Your task to perform on an android device: turn off improve location accuracy Image 0: 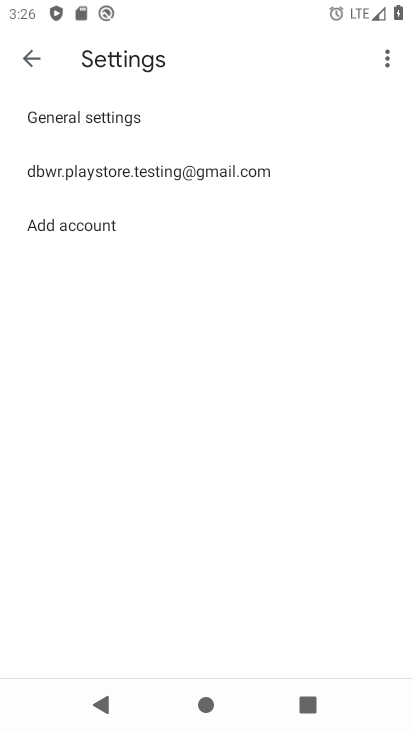
Step 0: press home button
Your task to perform on an android device: turn off improve location accuracy Image 1: 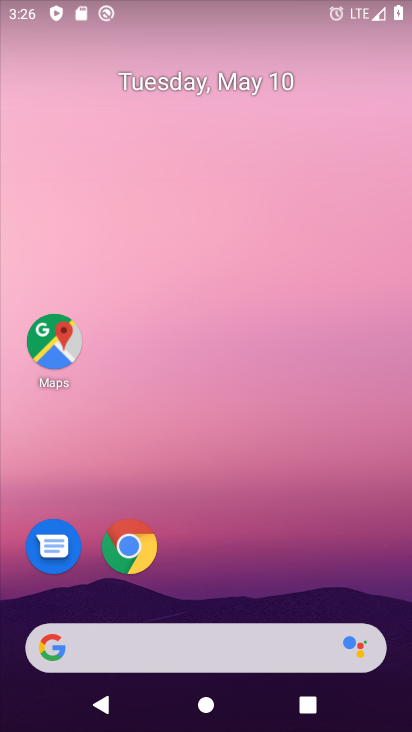
Step 1: drag from (212, 596) to (280, 50)
Your task to perform on an android device: turn off improve location accuracy Image 2: 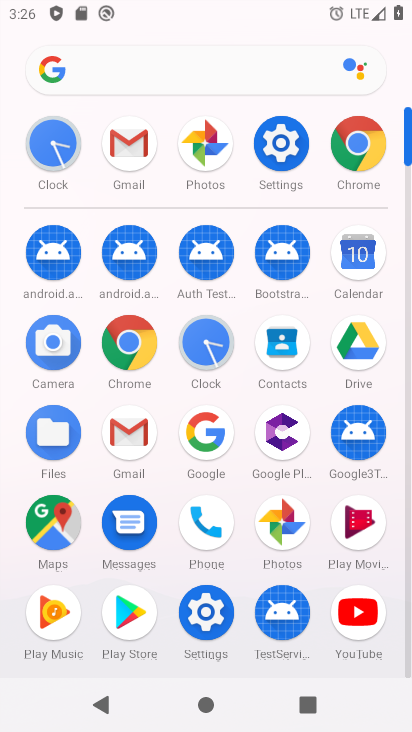
Step 2: click (217, 623)
Your task to perform on an android device: turn off improve location accuracy Image 3: 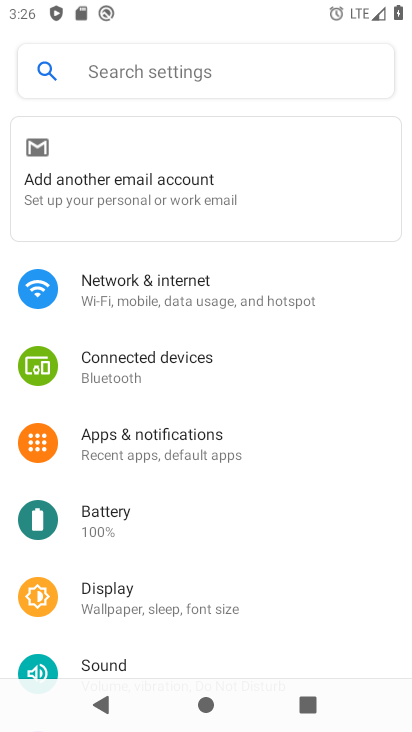
Step 3: drag from (191, 544) to (223, 285)
Your task to perform on an android device: turn off improve location accuracy Image 4: 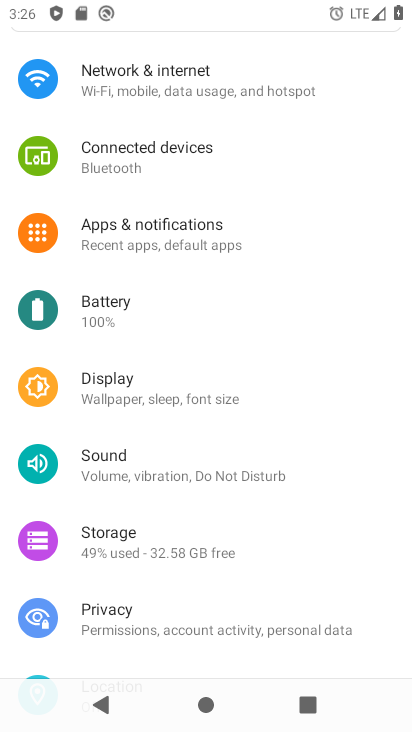
Step 4: drag from (209, 493) to (205, 375)
Your task to perform on an android device: turn off improve location accuracy Image 5: 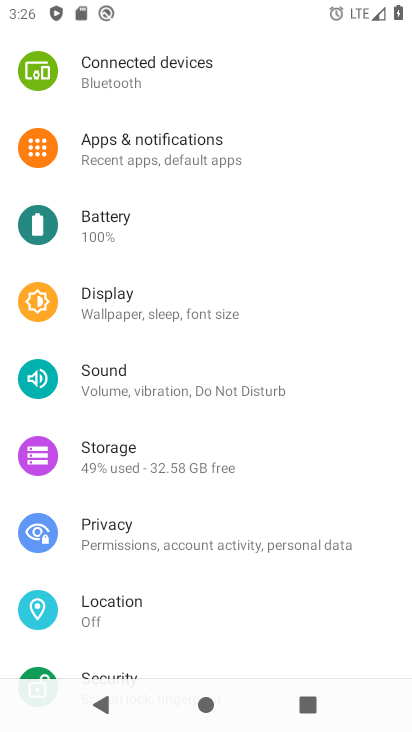
Step 5: click (136, 608)
Your task to perform on an android device: turn off improve location accuracy Image 6: 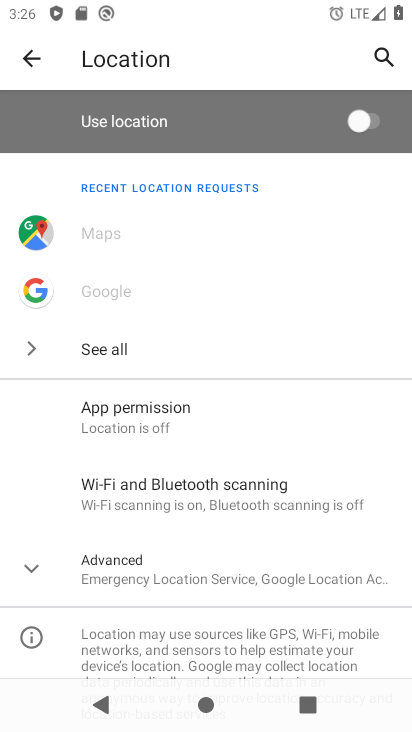
Step 6: drag from (174, 603) to (204, 294)
Your task to perform on an android device: turn off improve location accuracy Image 7: 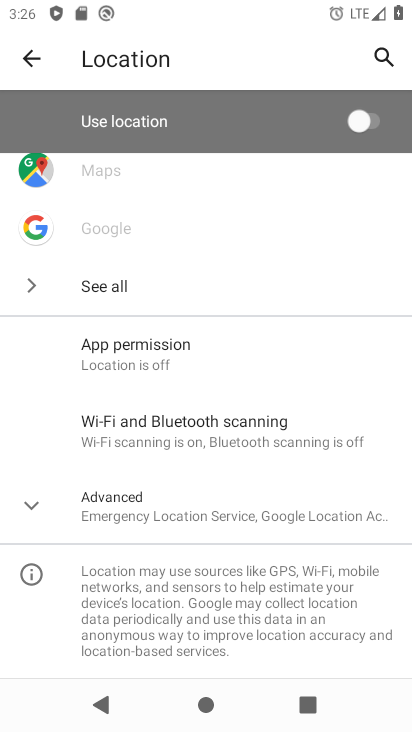
Step 7: click (125, 508)
Your task to perform on an android device: turn off improve location accuracy Image 8: 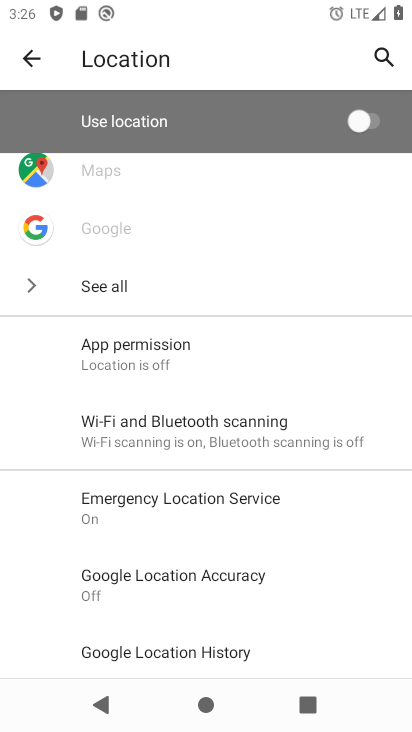
Step 8: click (188, 579)
Your task to perform on an android device: turn off improve location accuracy Image 9: 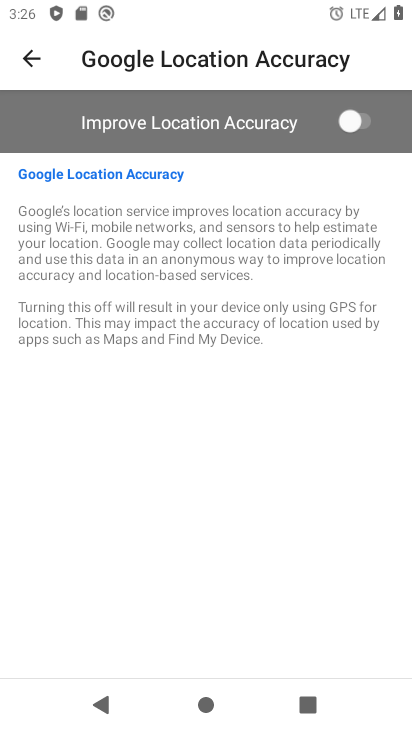
Step 9: task complete